Your task to perform on an android device: Empty the shopping cart on target. Image 0: 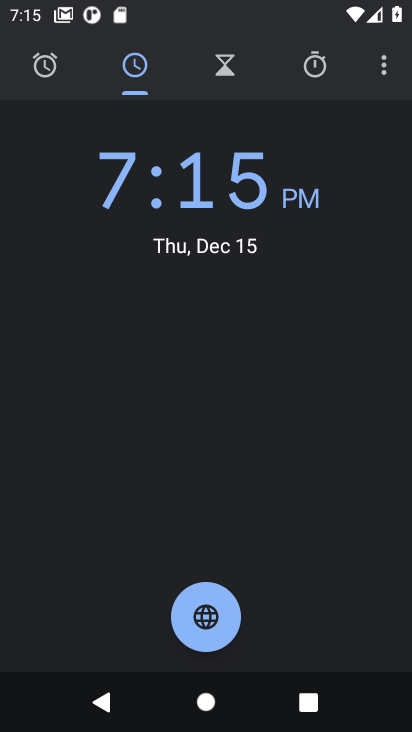
Step 0: press home button
Your task to perform on an android device: Empty the shopping cart on target. Image 1: 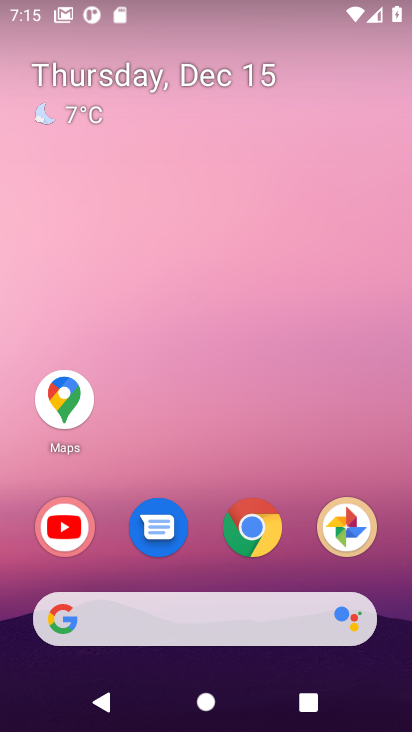
Step 1: click (238, 535)
Your task to perform on an android device: Empty the shopping cart on target. Image 2: 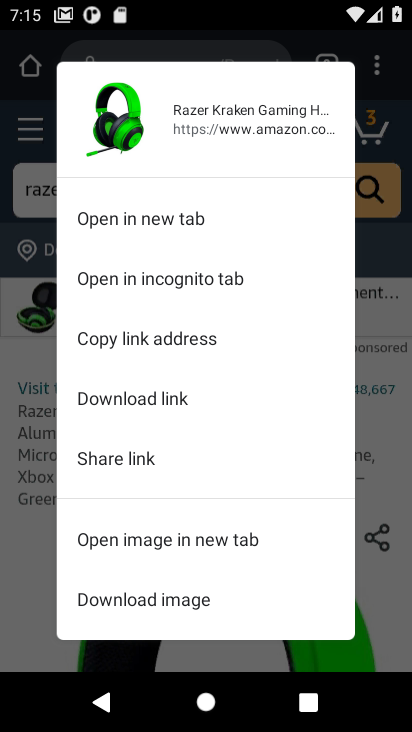
Step 2: click (379, 502)
Your task to perform on an android device: Empty the shopping cart on target. Image 3: 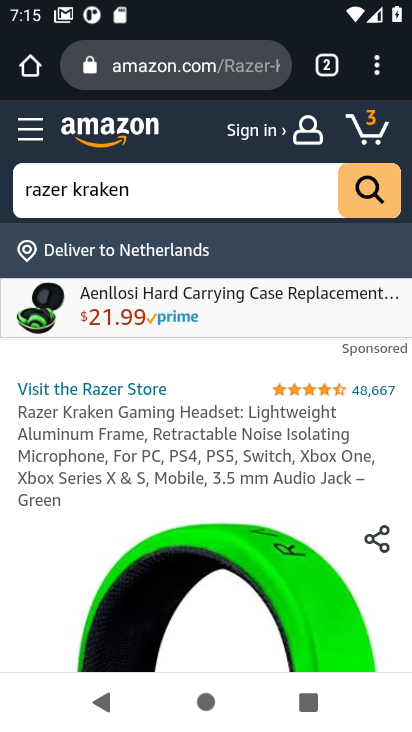
Step 3: click (160, 52)
Your task to perform on an android device: Empty the shopping cart on target. Image 4: 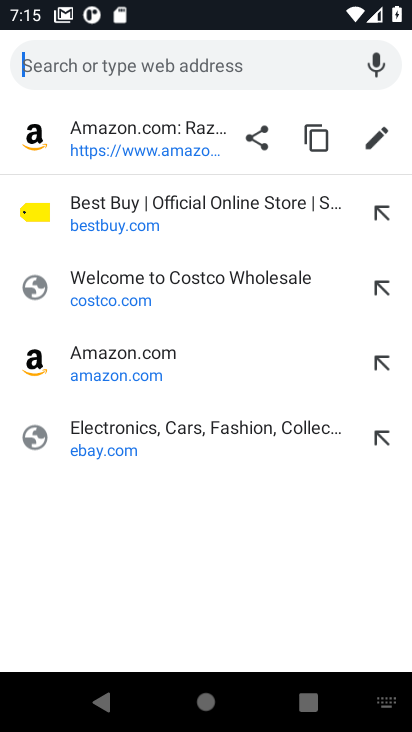
Step 4: type "target"
Your task to perform on an android device: Empty the shopping cart on target. Image 5: 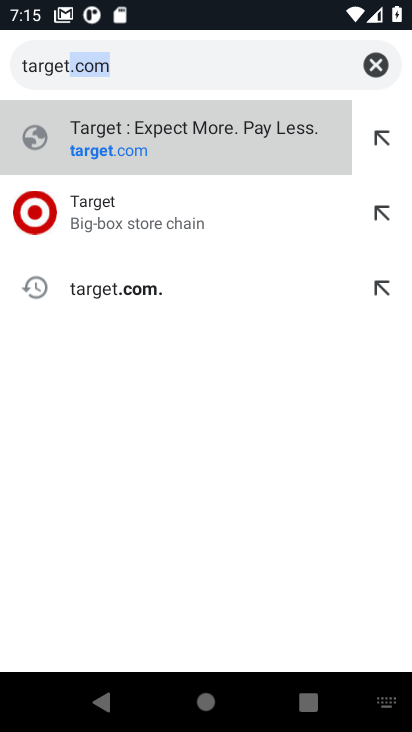
Step 5: click (123, 223)
Your task to perform on an android device: Empty the shopping cart on target. Image 6: 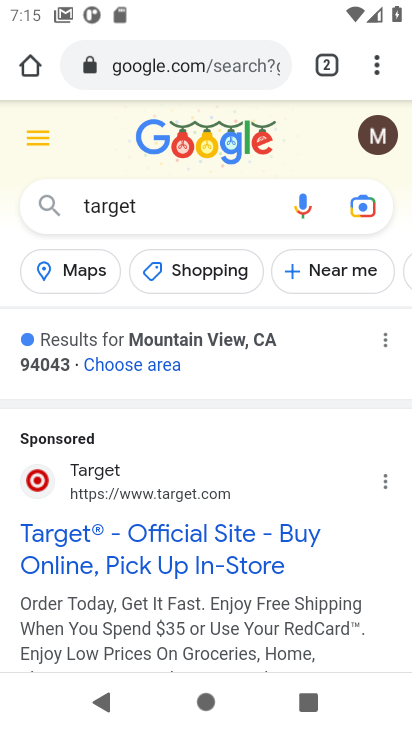
Step 6: click (137, 517)
Your task to perform on an android device: Empty the shopping cart on target. Image 7: 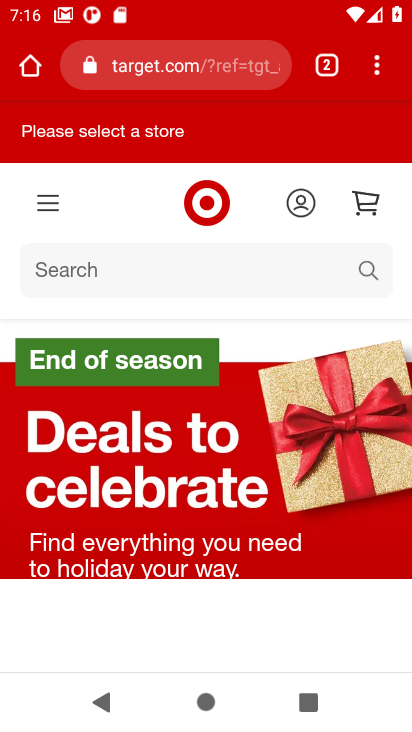
Step 7: click (370, 195)
Your task to perform on an android device: Empty the shopping cart on target. Image 8: 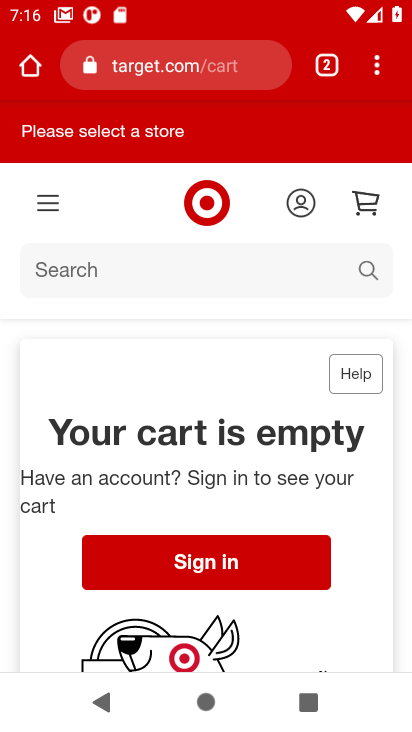
Step 8: task complete